Your task to perform on an android device: set the stopwatch Image 0: 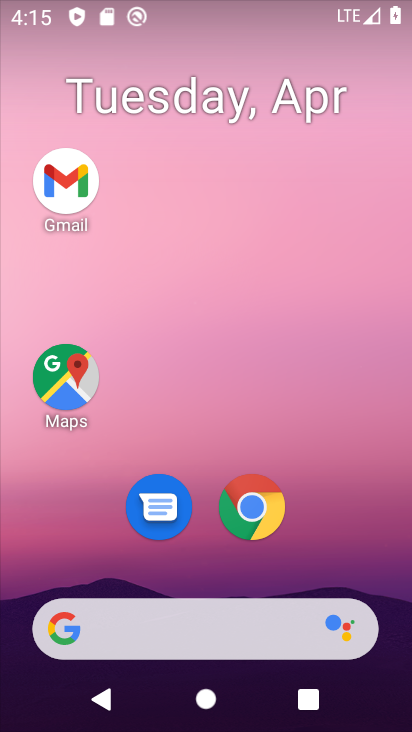
Step 0: drag from (242, 569) to (252, 137)
Your task to perform on an android device: set the stopwatch Image 1: 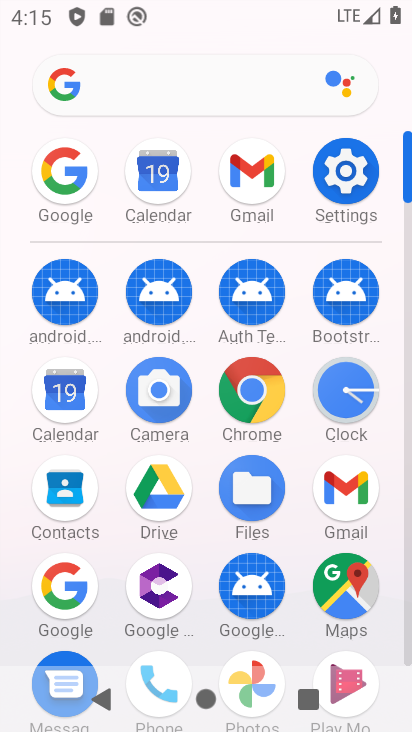
Step 1: click (320, 412)
Your task to perform on an android device: set the stopwatch Image 2: 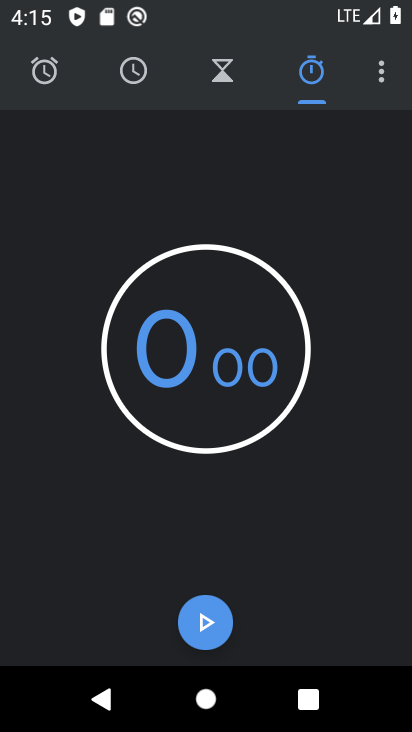
Step 2: click (216, 609)
Your task to perform on an android device: set the stopwatch Image 3: 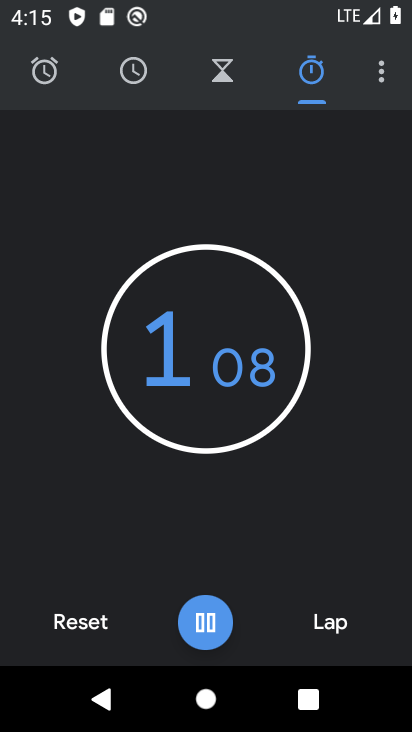
Step 3: task complete